Your task to perform on an android device: delete location history Image 0: 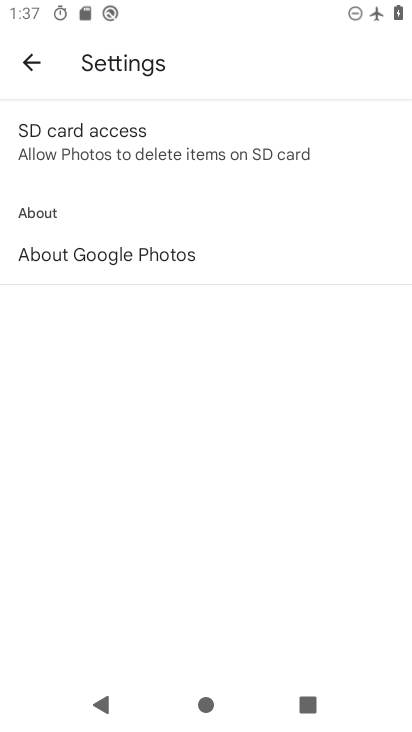
Step 0: click (40, 60)
Your task to perform on an android device: delete location history Image 1: 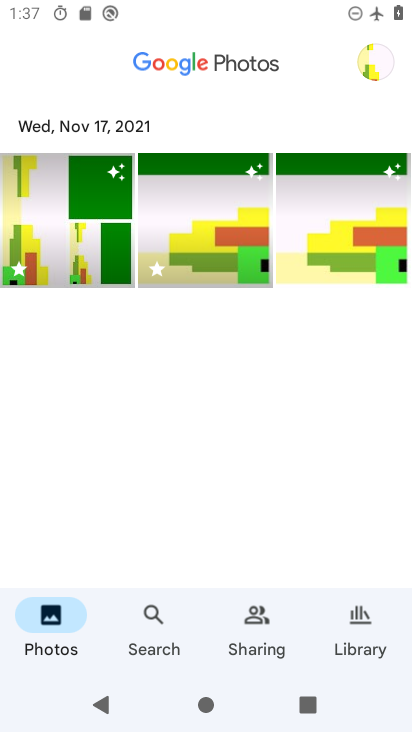
Step 1: press home button
Your task to perform on an android device: delete location history Image 2: 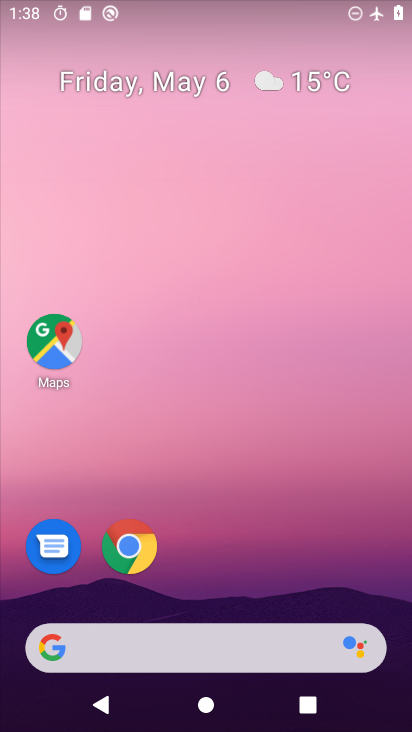
Step 2: drag from (237, 587) to (289, 240)
Your task to perform on an android device: delete location history Image 3: 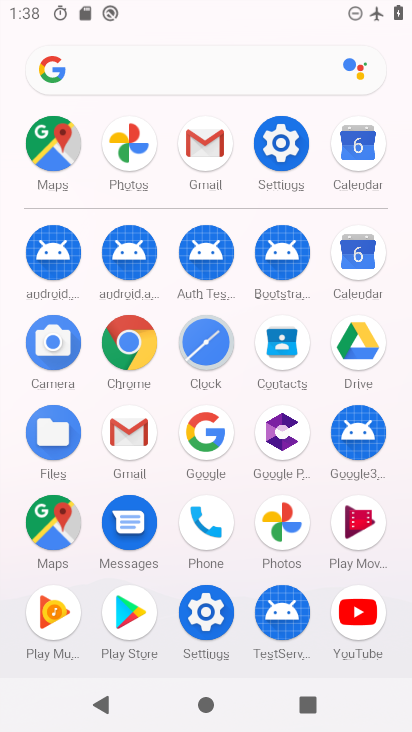
Step 3: click (60, 149)
Your task to perform on an android device: delete location history Image 4: 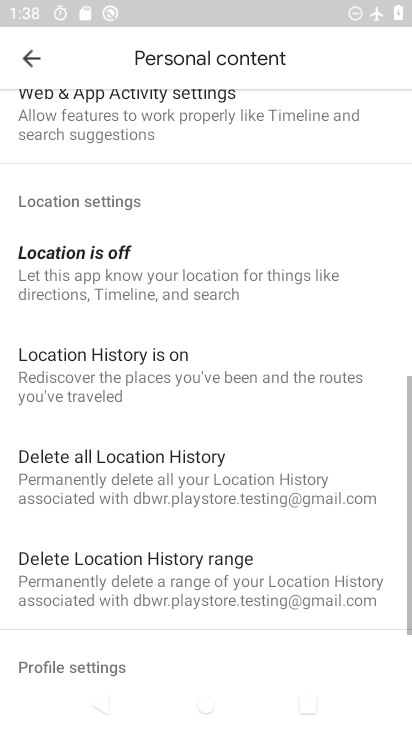
Step 4: click (186, 467)
Your task to perform on an android device: delete location history Image 5: 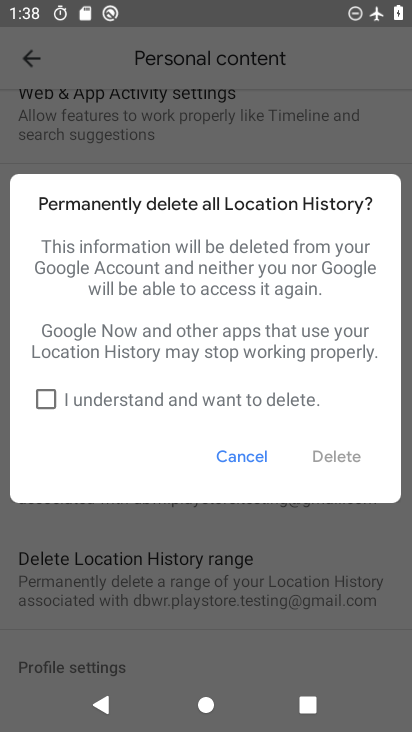
Step 5: click (55, 396)
Your task to perform on an android device: delete location history Image 6: 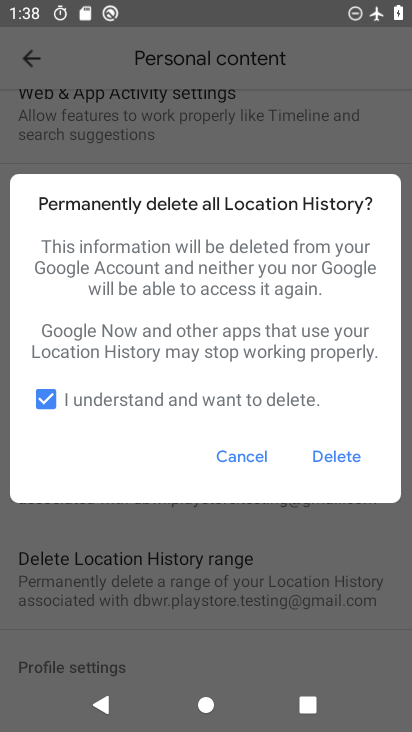
Step 6: click (347, 454)
Your task to perform on an android device: delete location history Image 7: 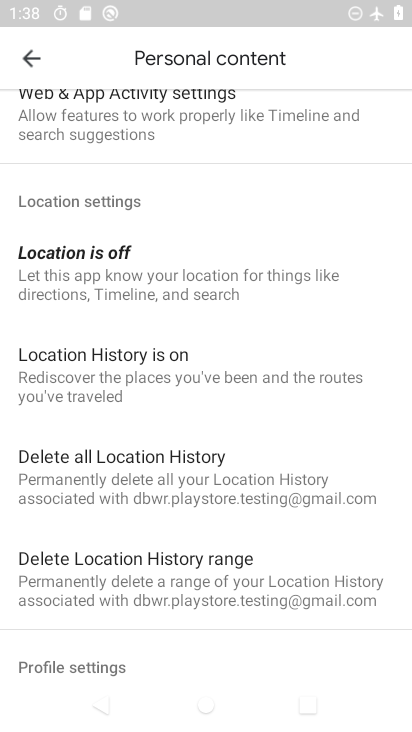
Step 7: task complete